Your task to perform on an android device: turn off wifi Image 0: 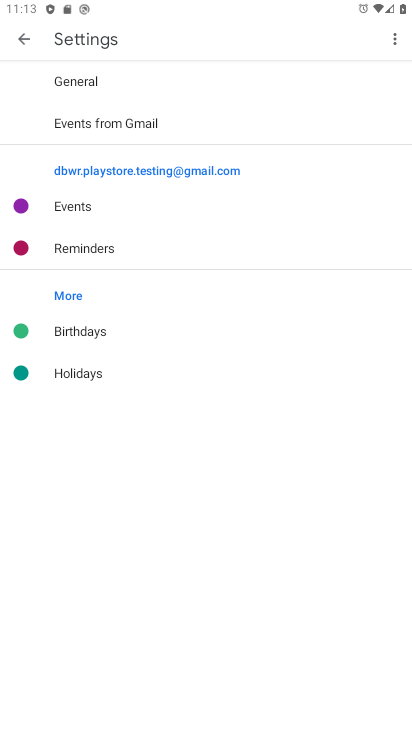
Step 0: press home button
Your task to perform on an android device: turn off wifi Image 1: 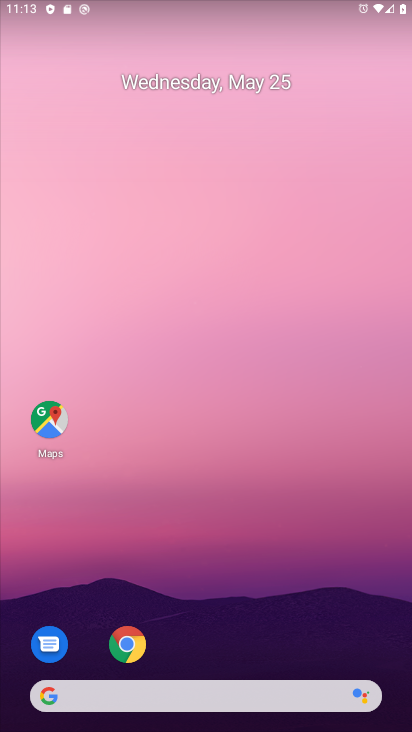
Step 1: drag from (237, 600) to (232, 59)
Your task to perform on an android device: turn off wifi Image 2: 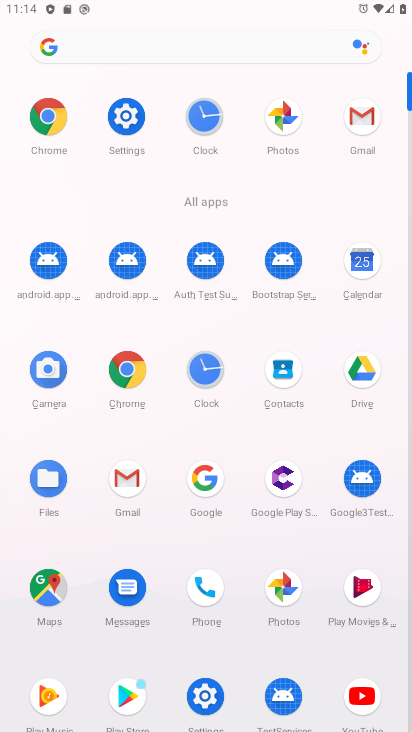
Step 2: click (125, 116)
Your task to perform on an android device: turn off wifi Image 3: 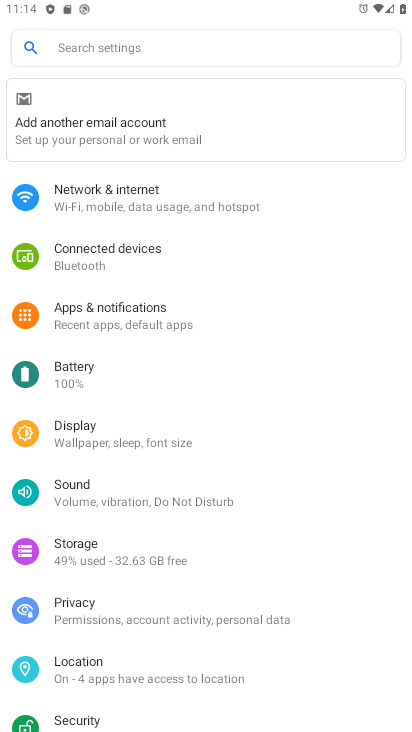
Step 3: click (116, 205)
Your task to perform on an android device: turn off wifi Image 4: 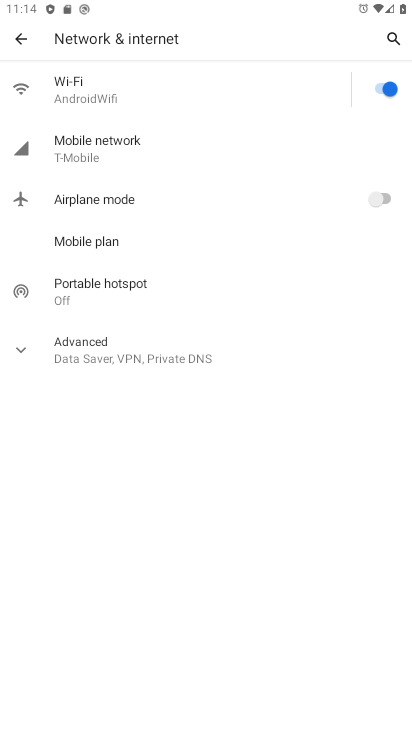
Step 4: click (380, 93)
Your task to perform on an android device: turn off wifi Image 5: 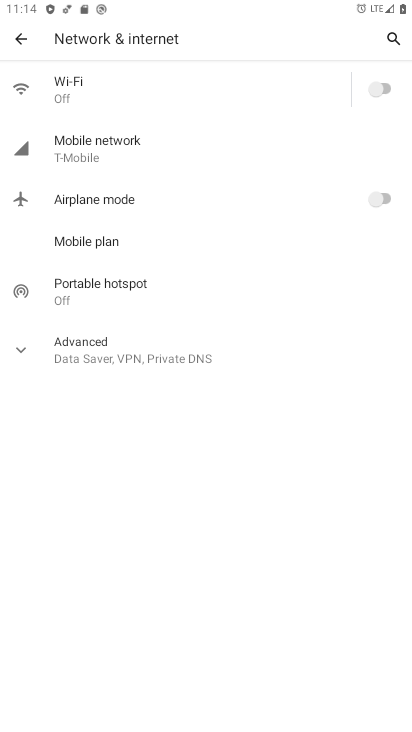
Step 5: task complete